Your task to perform on an android device: see tabs open on other devices in the chrome app Image 0: 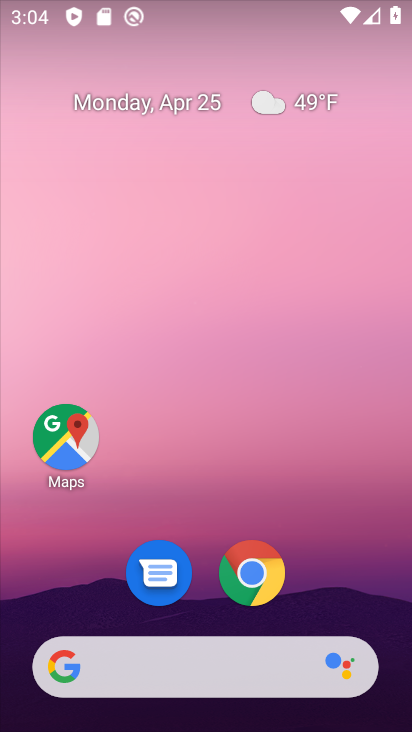
Step 0: drag from (327, 508) to (260, 115)
Your task to perform on an android device: see tabs open on other devices in the chrome app Image 1: 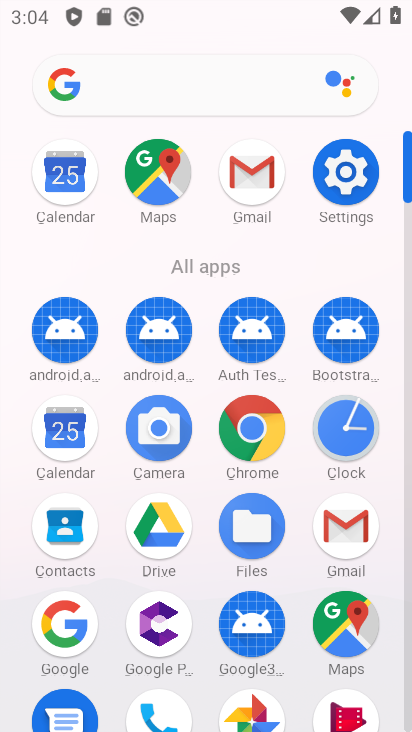
Step 1: click (253, 438)
Your task to perform on an android device: see tabs open on other devices in the chrome app Image 2: 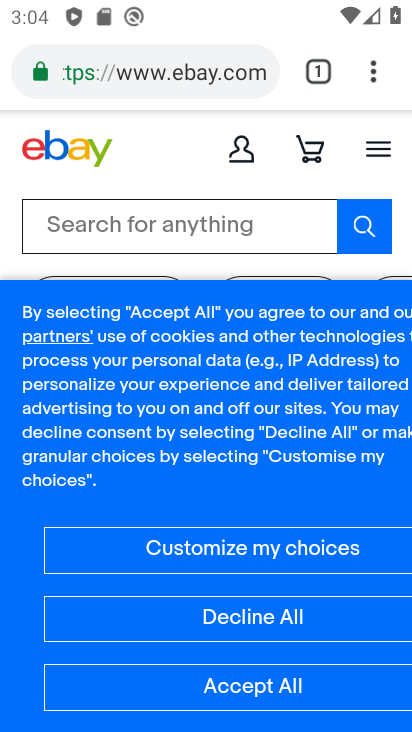
Step 2: click (375, 82)
Your task to perform on an android device: see tabs open on other devices in the chrome app Image 3: 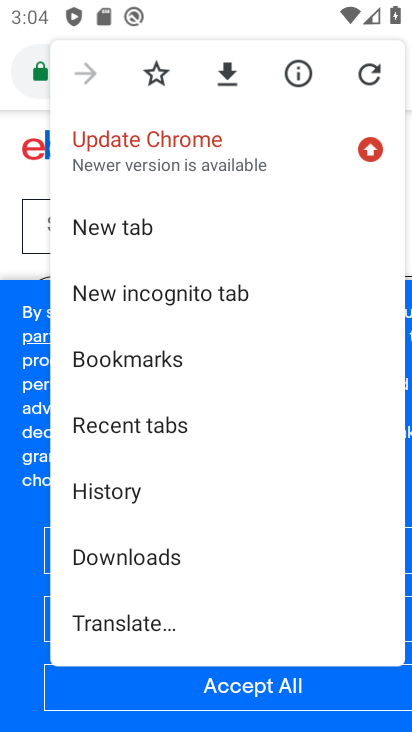
Step 3: click (154, 423)
Your task to perform on an android device: see tabs open on other devices in the chrome app Image 4: 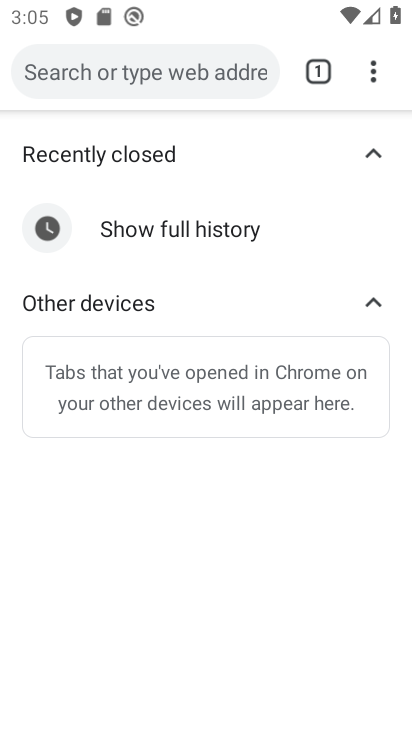
Step 4: task complete